Your task to perform on an android device: Turn on the flashlight Image 0: 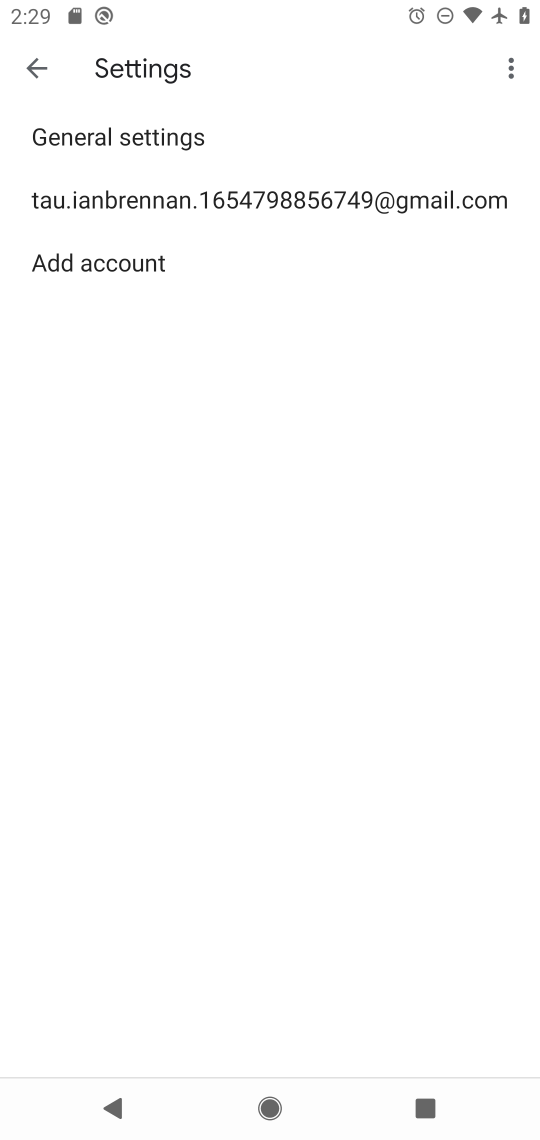
Step 0: press home button
Your task to perform on an android device: Turn on the flashlight Image 1: 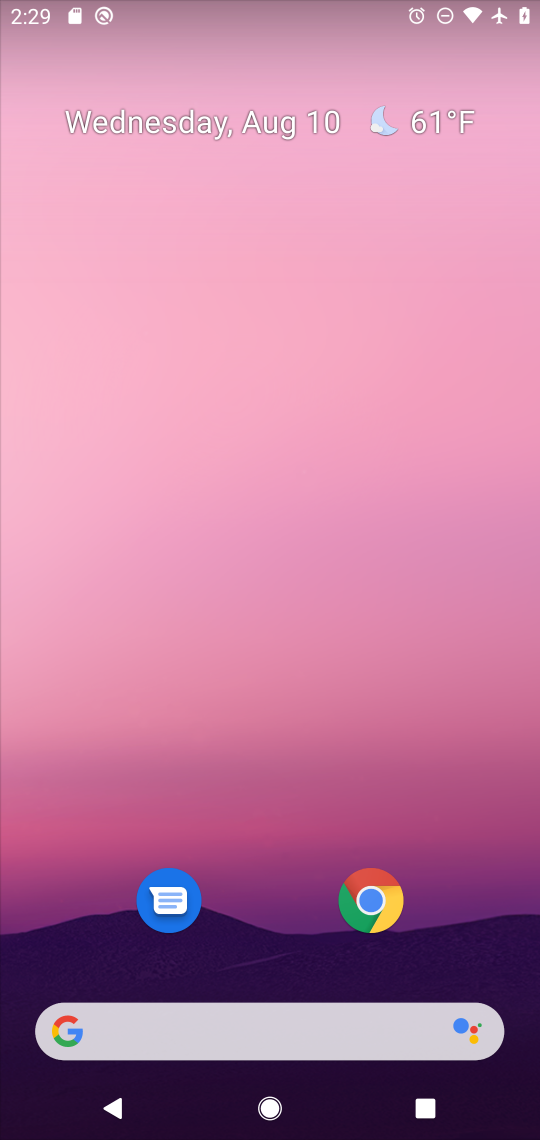
Step 1: drag from (261, 953) to (293, 2)
Your task to perform on an android device: Turn on the flashlight Image 2: 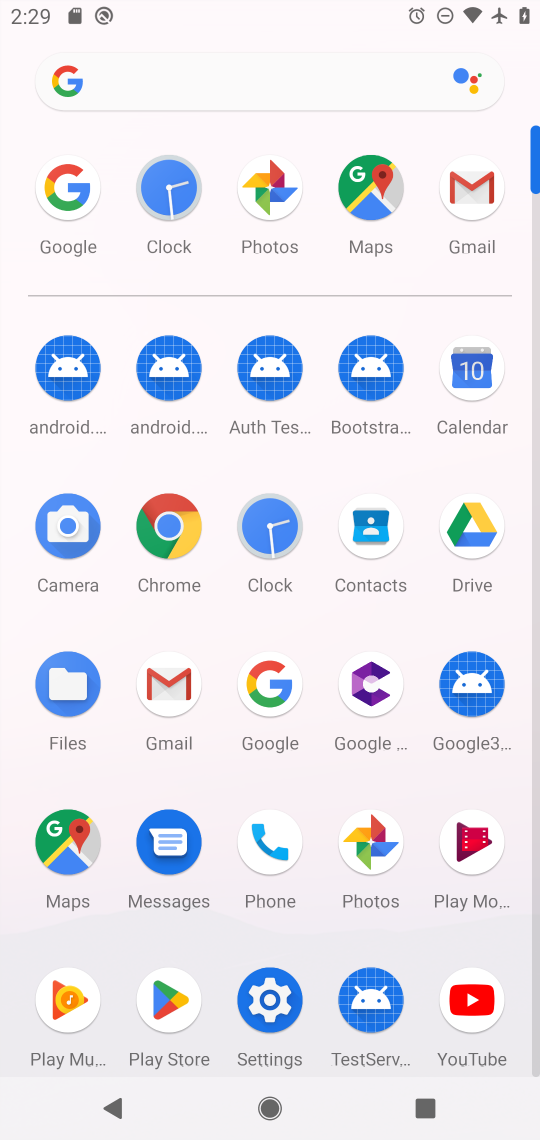
Step 2: click (273, 991)
Your task to perform on an android device: Turn on the flashlight Image 3: 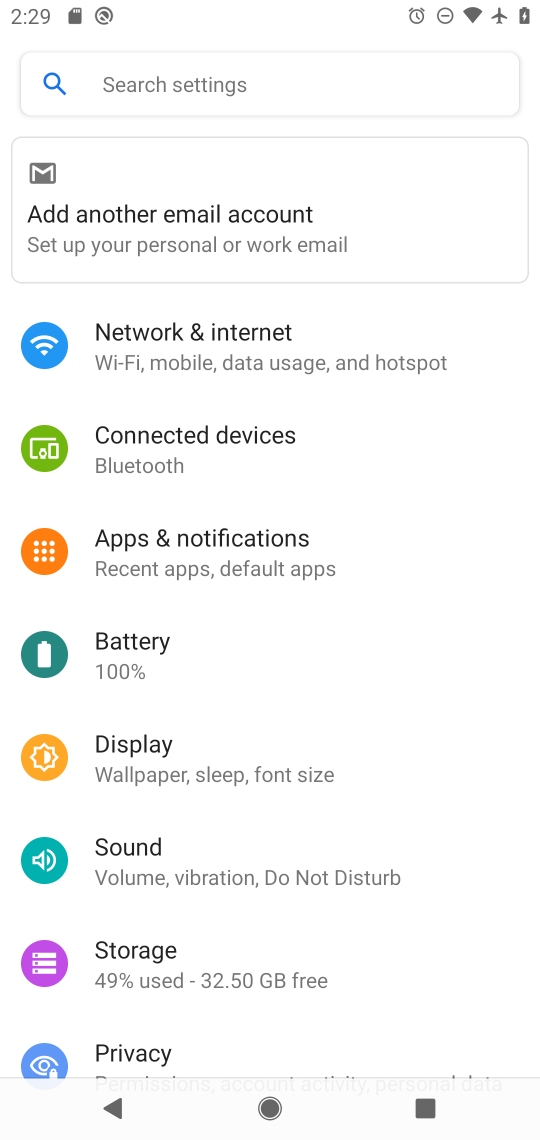
Step 3: click (305, 97)
Your task to perform on an android device: Turn on the flashlight Image 4: 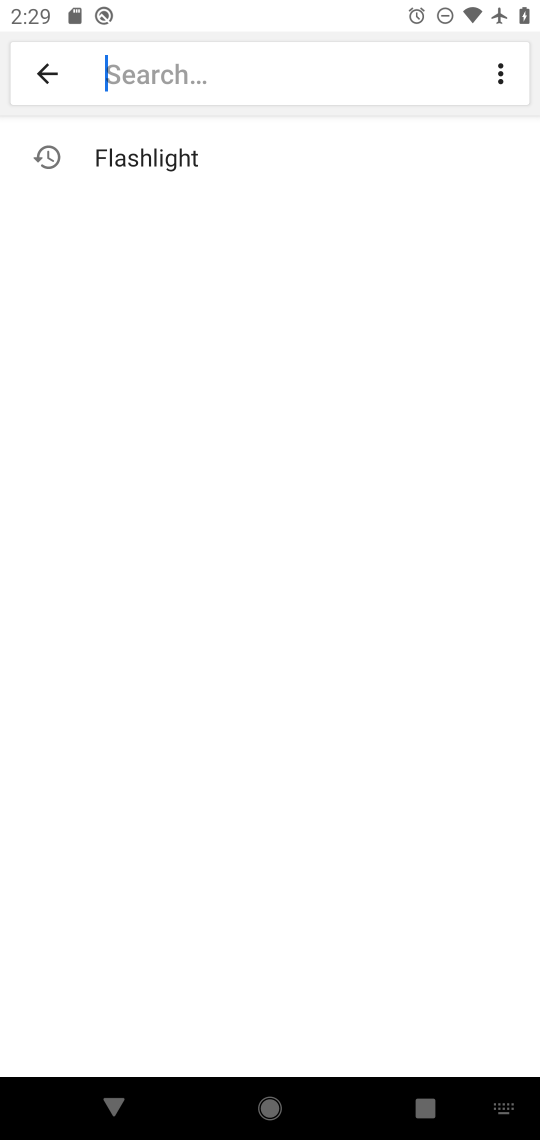
Step 4: type "Fl"
Your task to perform on an android device: Turn on the flashlight Image 5: 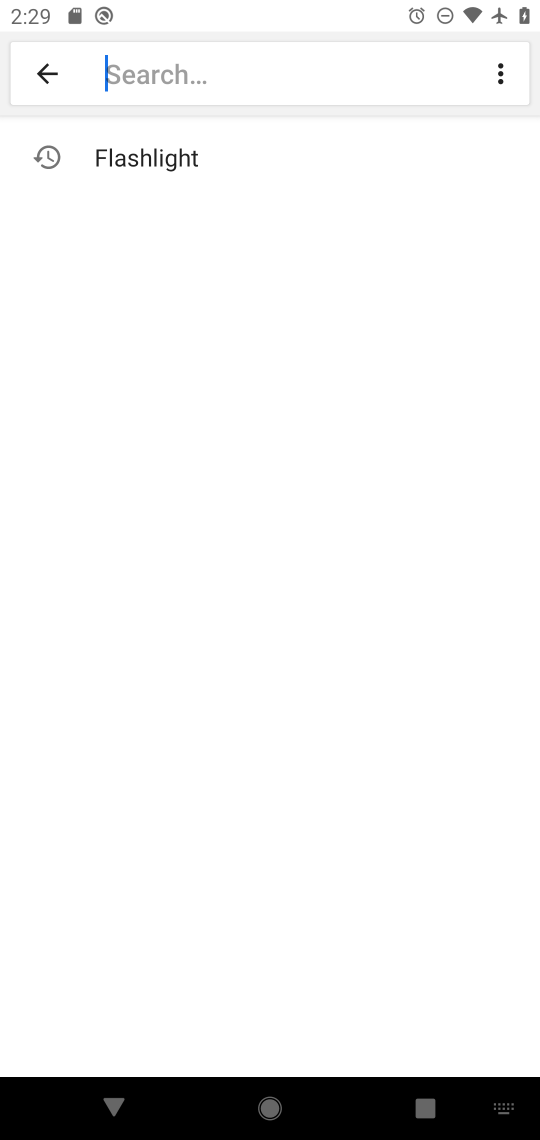
Step 5: click (178, 163)
Your task to perform on an android device: Turn on the flashlight Image 6: 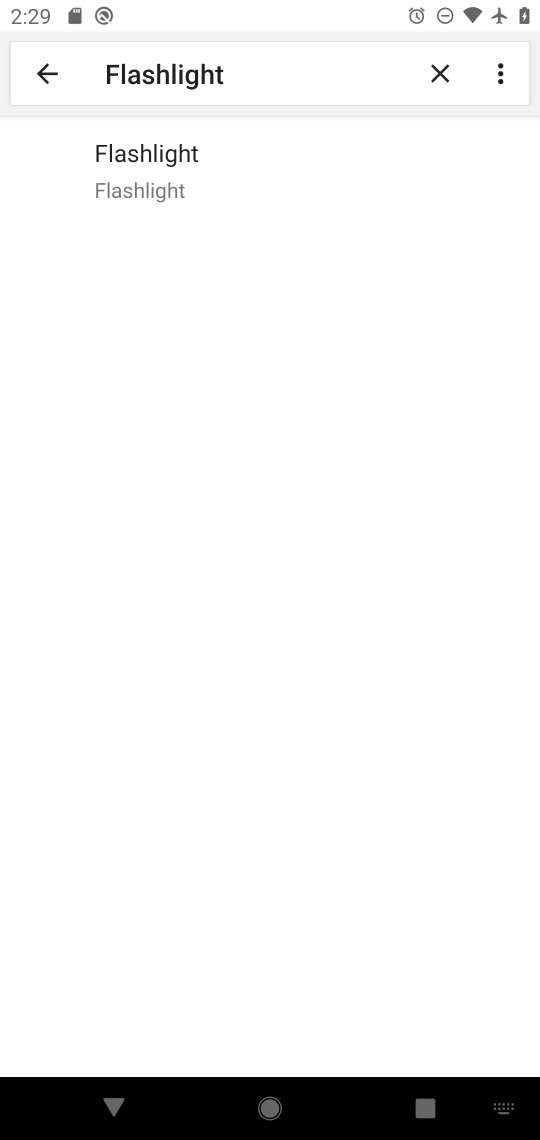
Step 6: click (178, 163)
Your task to perform on an android device: Turn on the flashlight Image 7: 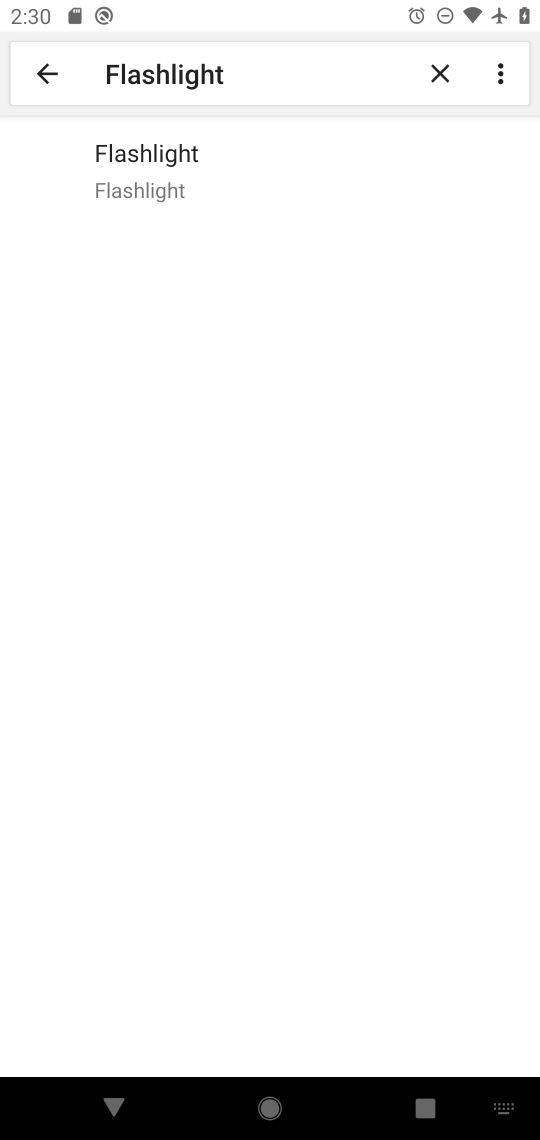
Step 7: task complete